Your task to perform on an android device: Search for vegetarian restaurants on Maps Image 0: 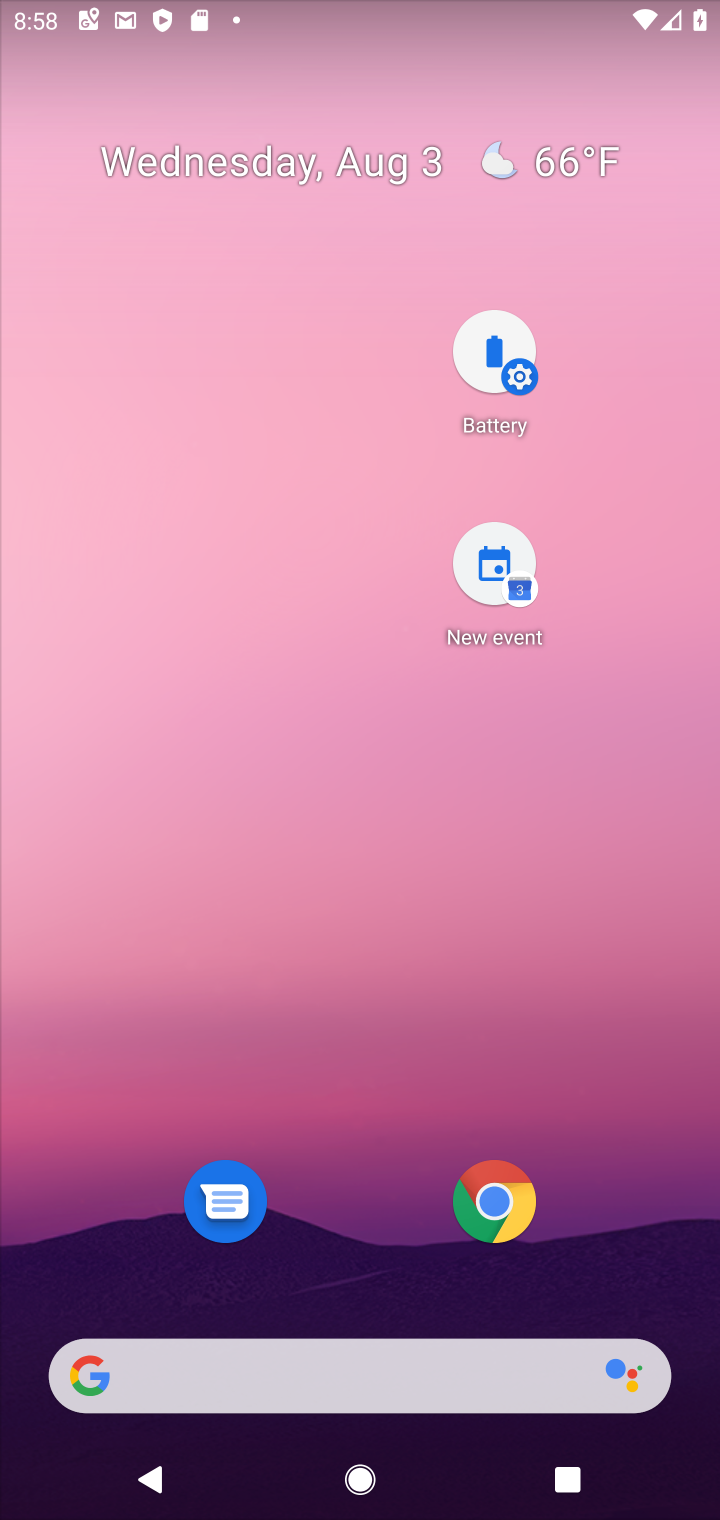
Step 0: click (341, 614)
Your task to perform on an android device: Search for vegetarian restaurants on Maps Image 1: 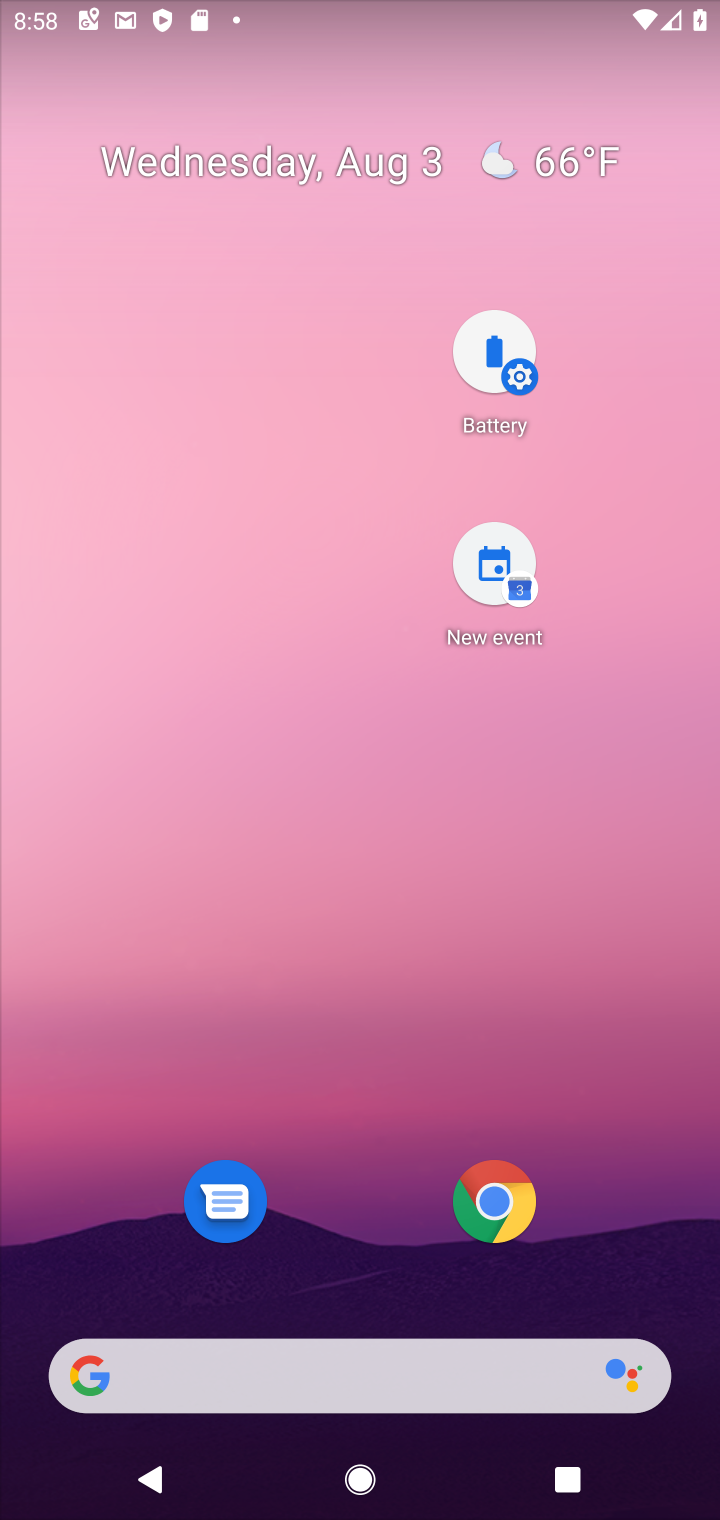
Step 1: click (485, 559)
Your task to perform on an android device: Search for vegetarian restaurants on Maps Image 2: 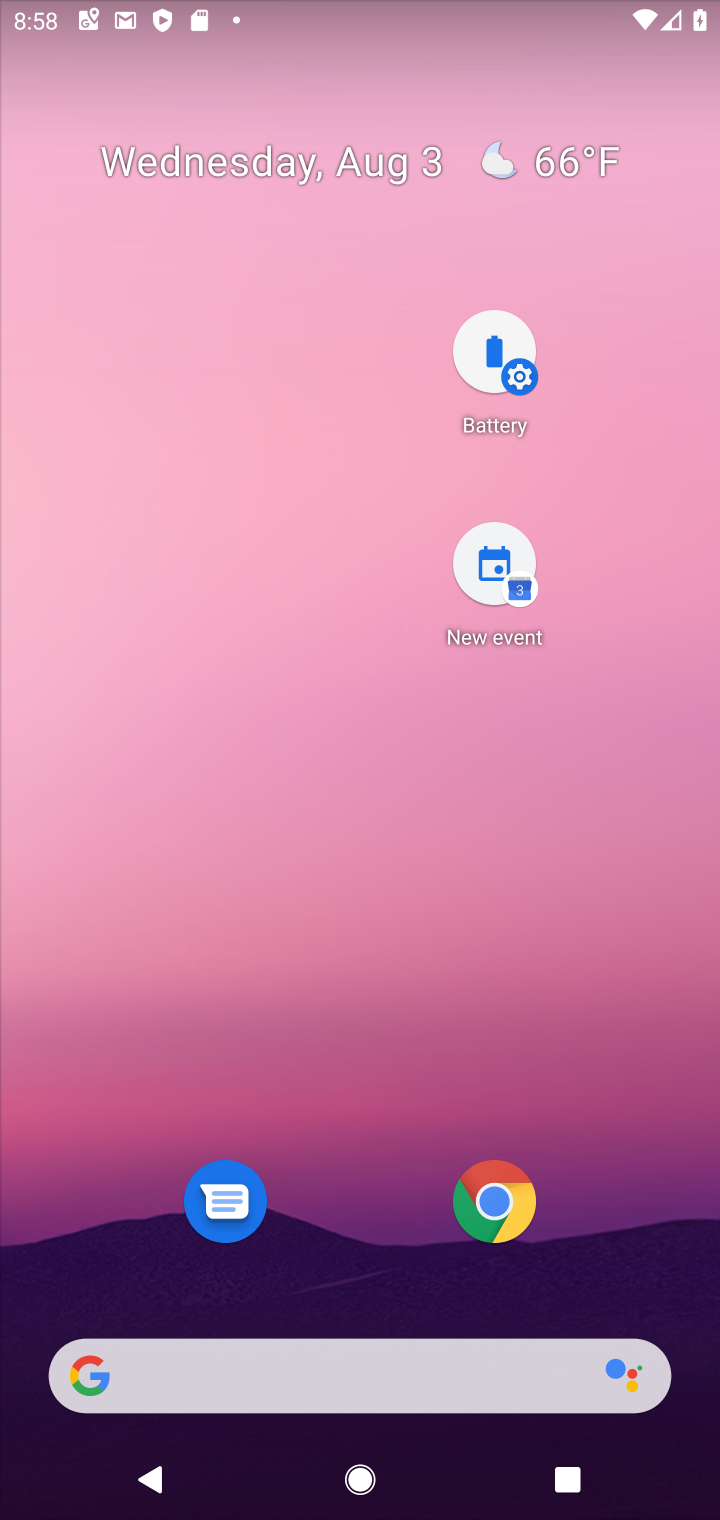
Step 2: drag from (386, 577) to (323, 435)
Your task to perform on an android device: Search for vegetarian restaurants on Maps Image 3: 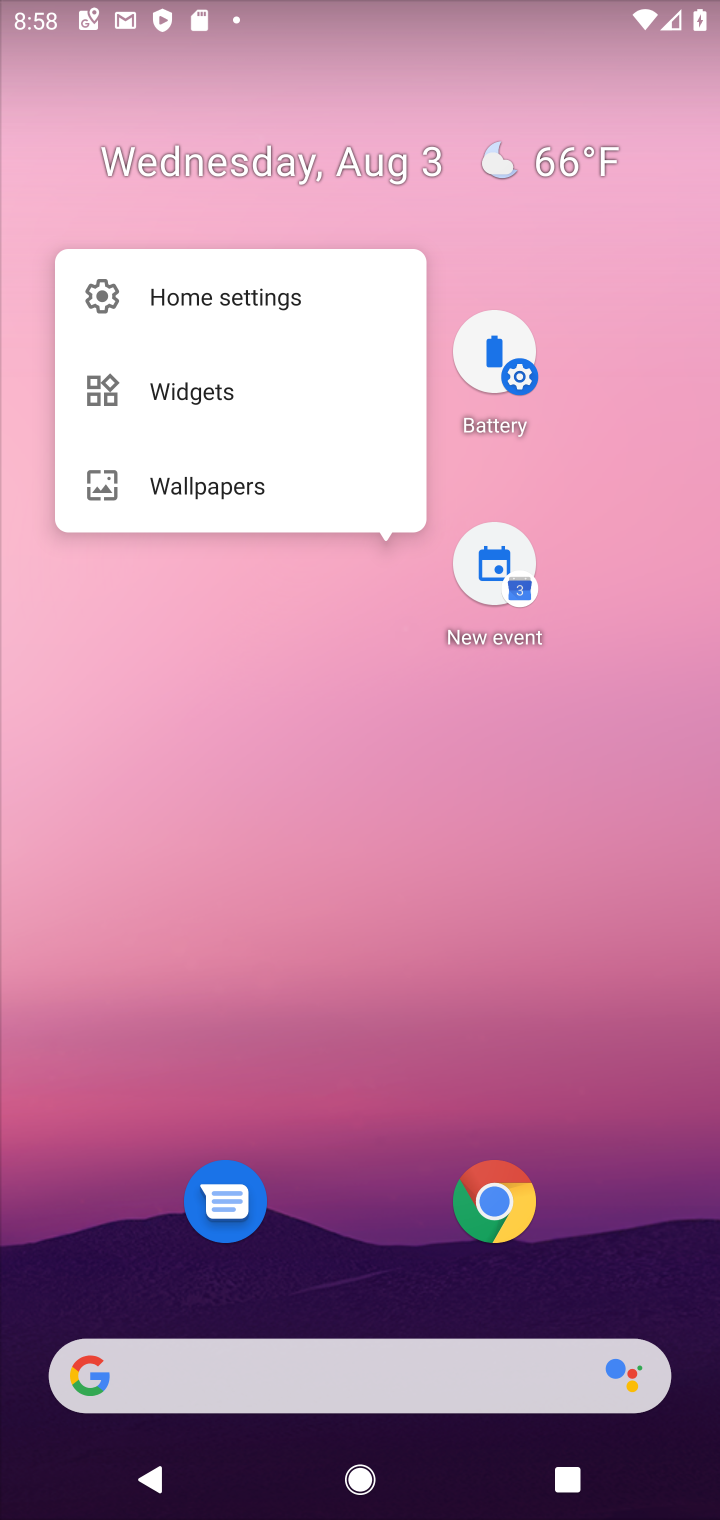
Step 3: drag from (495, 444) to (598, 297)
Your task to perform on an android device: Search for vegetarian restaurants on Maps Image 4: 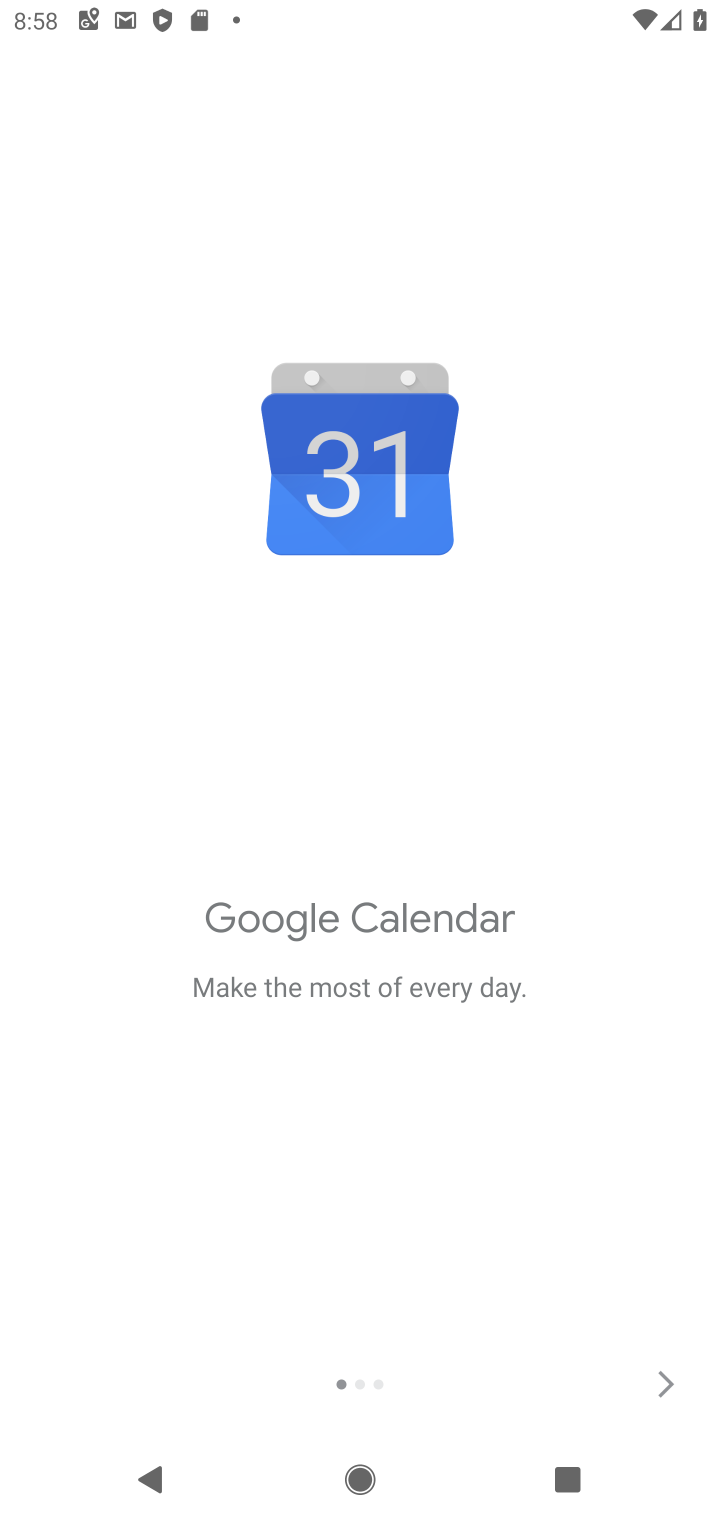
Step 4: click (607, 446)
Your task to perform on an android device: Search for vegetarian restaurants on Maps Image 5: 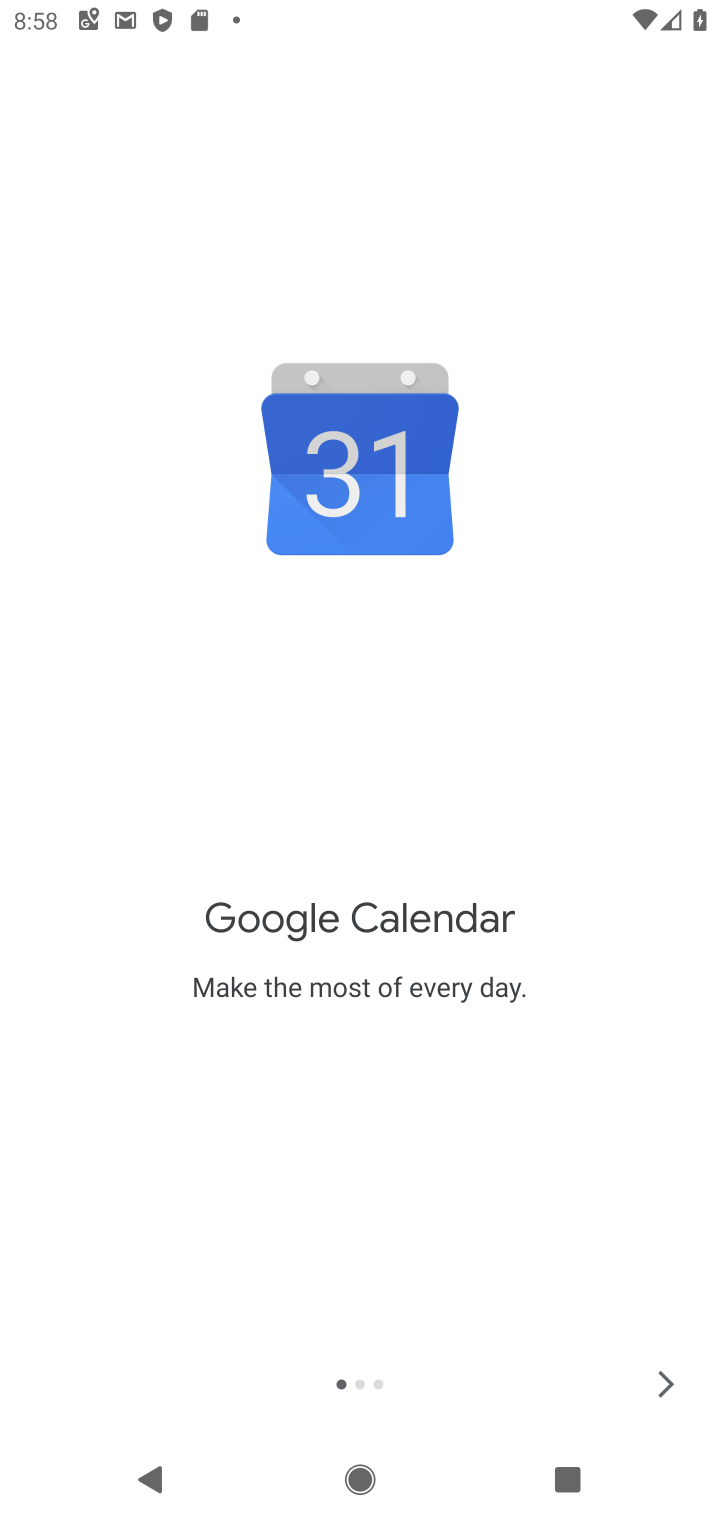
Step 5: press back button
Your task to perform on an android device: Search for vegetarian restaurants on Maps Image 6: 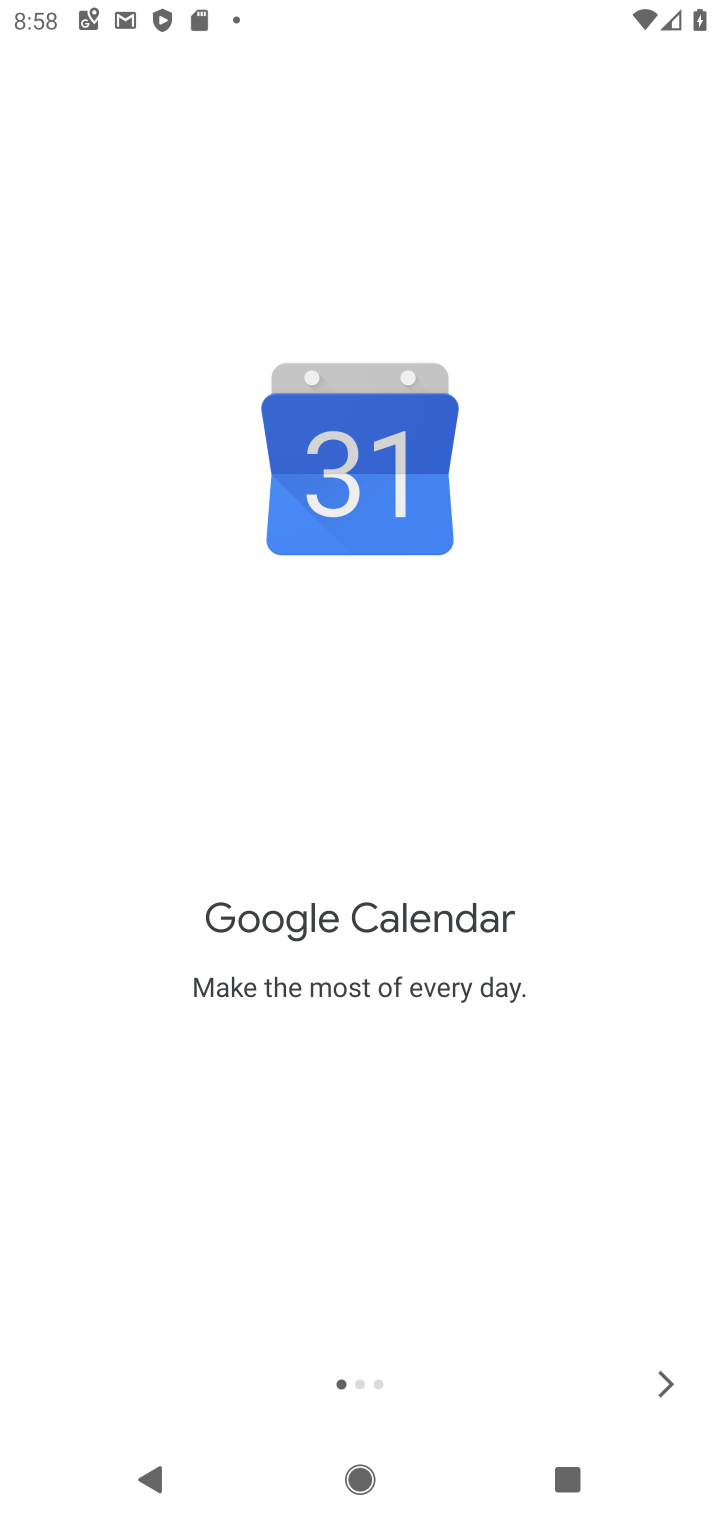
Step 6: press back button
Your task to perform on an android device: Search for vegetarian restaurants on Maps Image 7: 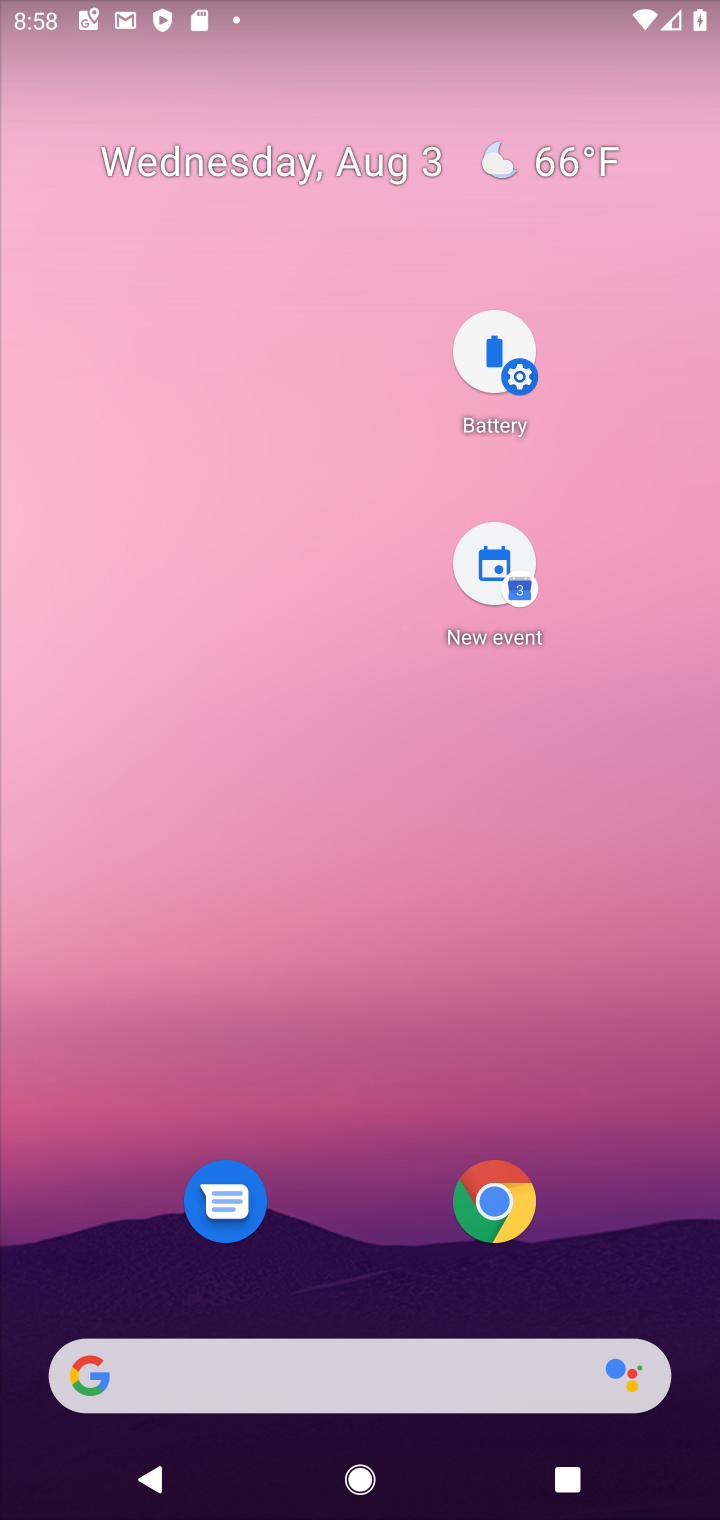
Step 7: press back button
Your task to perform on an android device: Search for vegetarian restaurants on Maps Image 8: 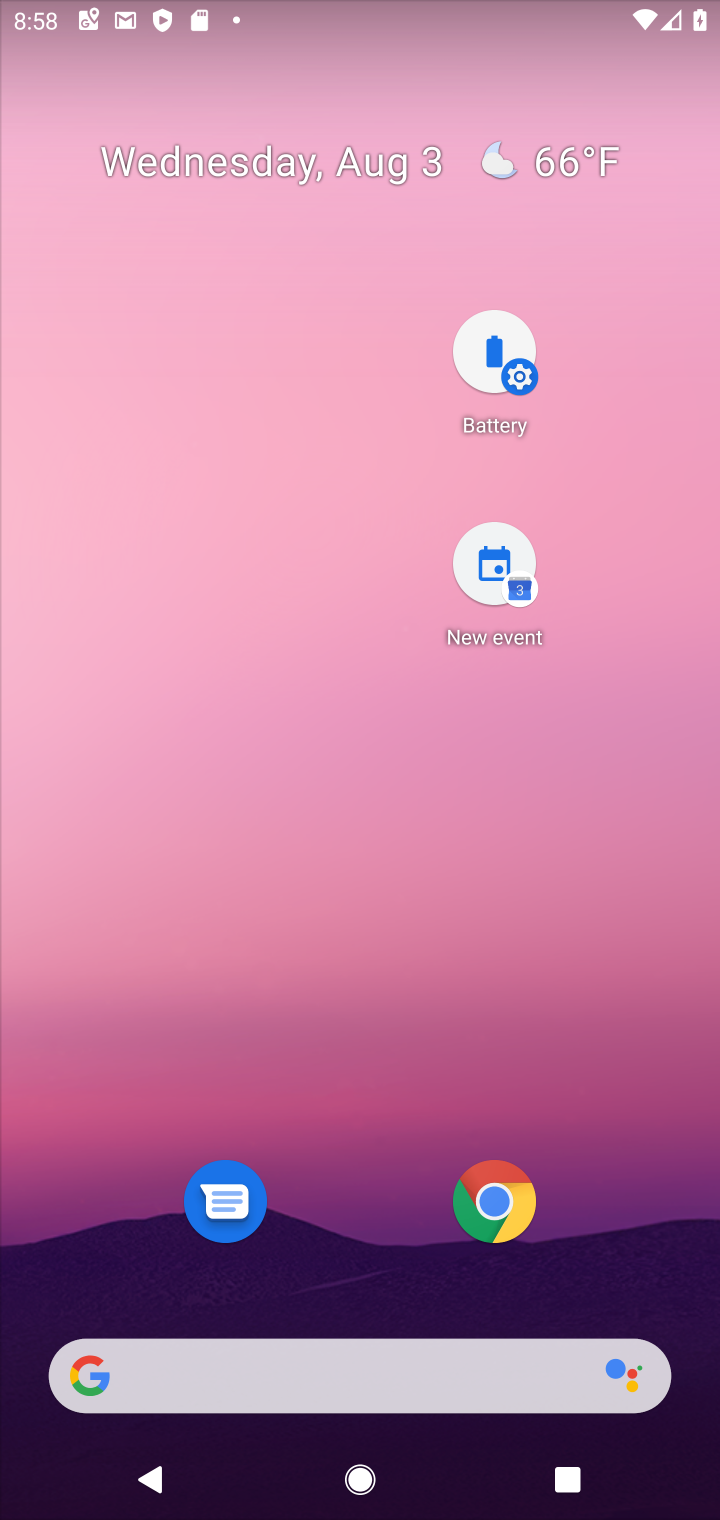
Step 8: press home button
Your task to perform on an android device: Search for vegetarian restaurants on Maps Image 9: 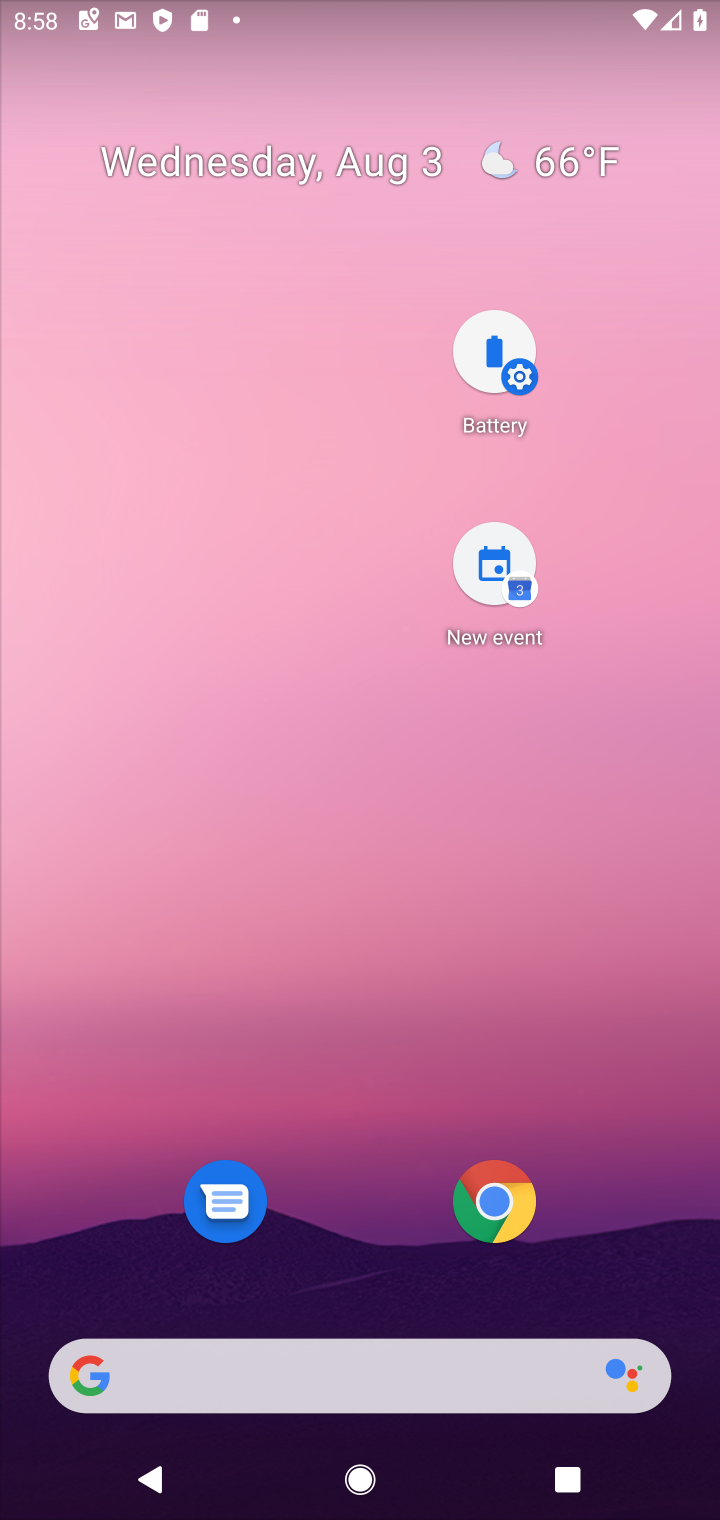
Step 9: drag from (390, 876) to (396, 641)
Your task to perform on an android device: Search for vegetarian restaurants on Maps Image 10: 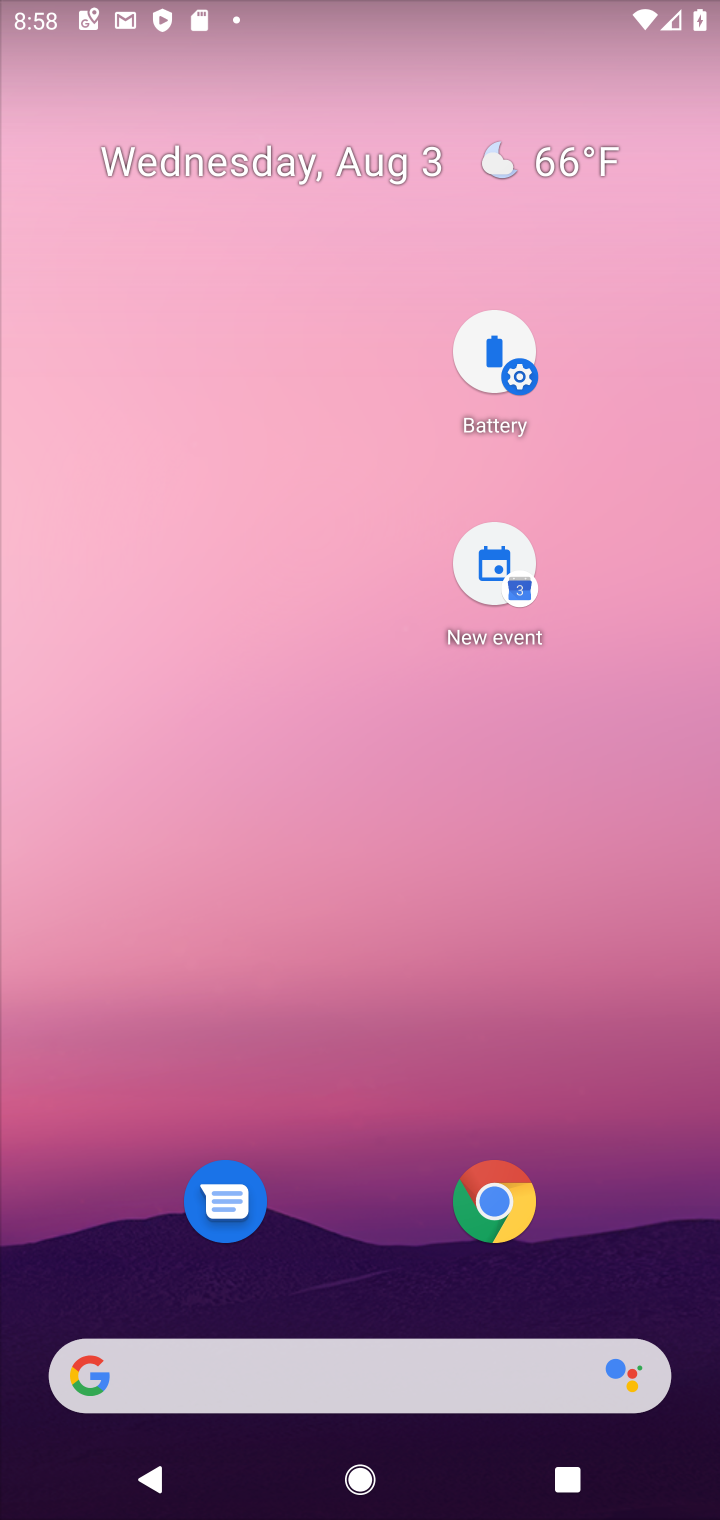
Step 10: drag from (205, 517) to (305, 347)
Your task to perform on an android device: Search for vegetarian restaurants on Maps Image 11: 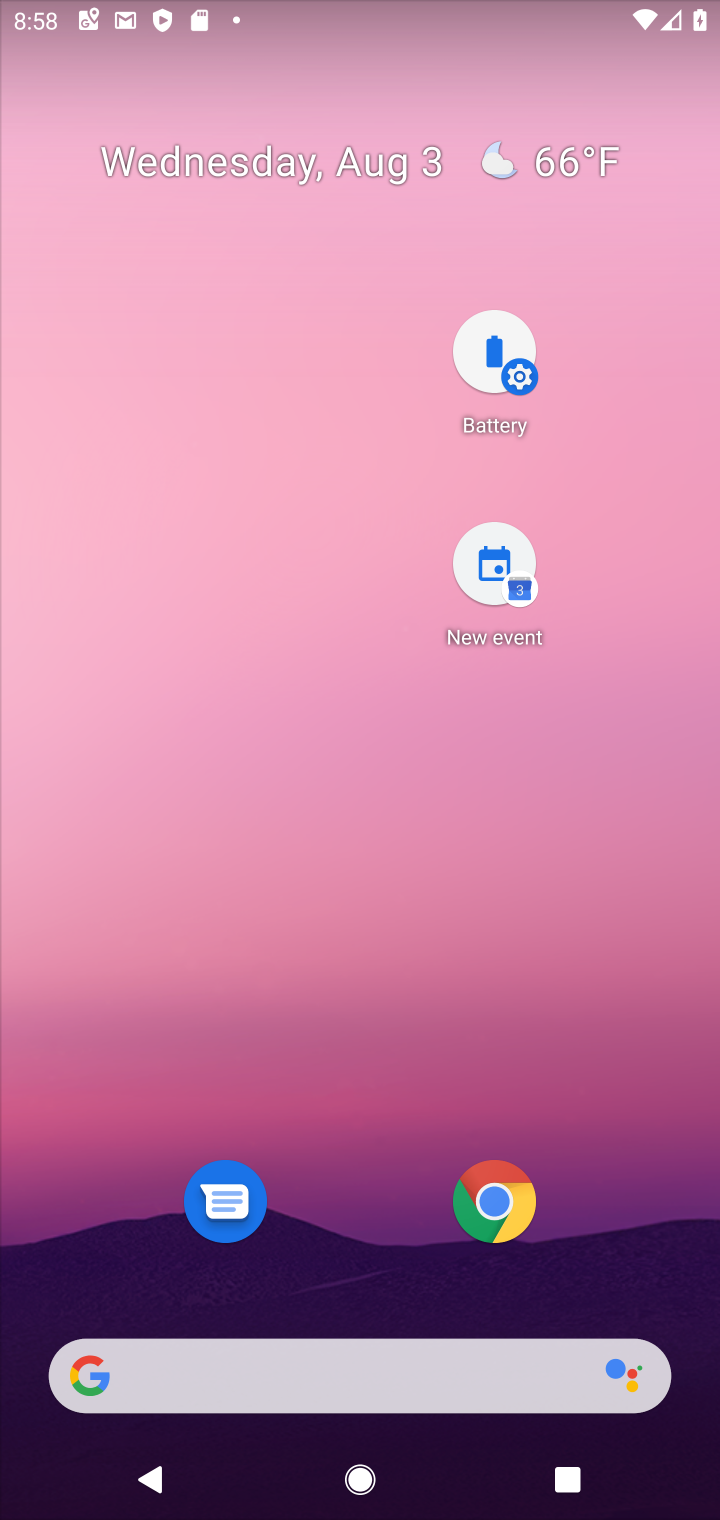
Step 11: drag from (384, 958) to (338, 400)
Your task to perform on an android device: Search for vegetarian restaurants on Maps Image 12: 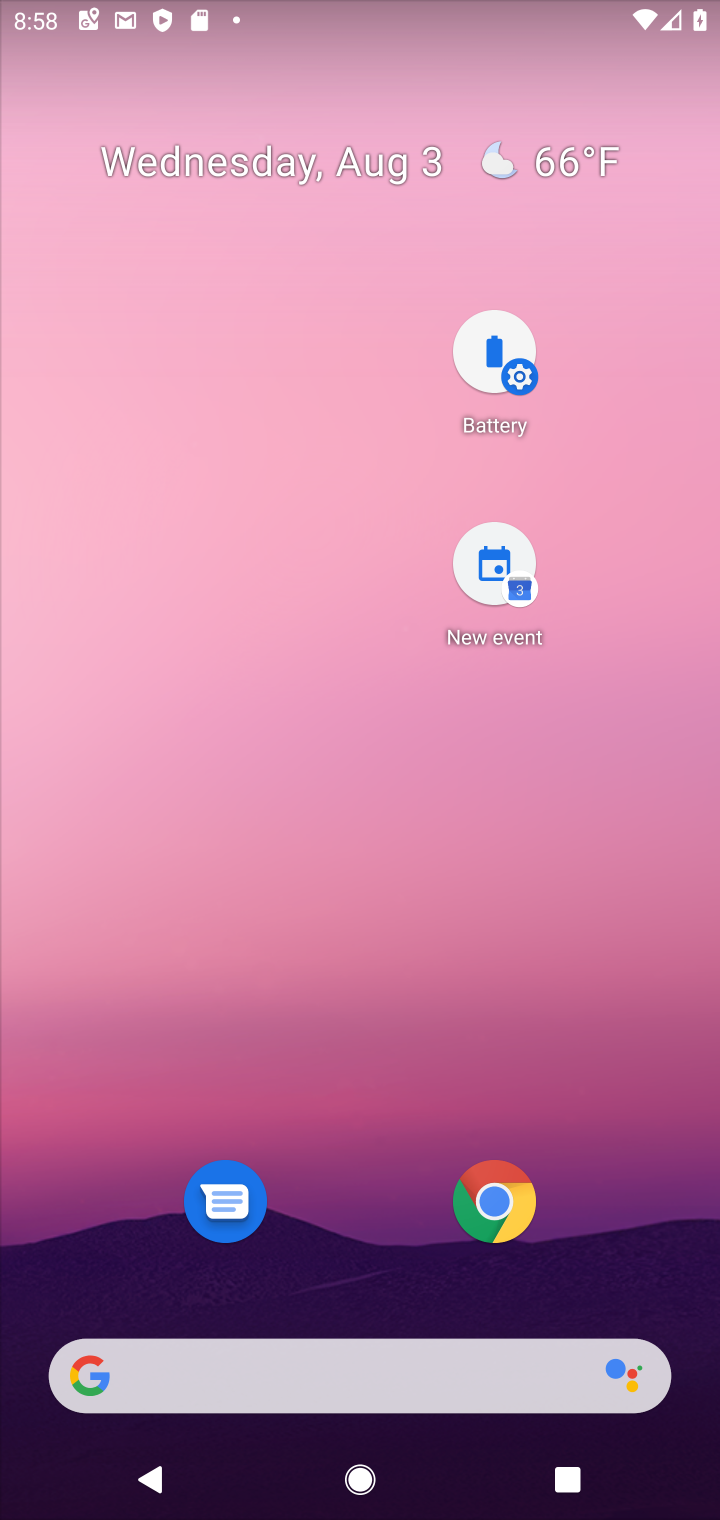
Step 12: drag from (438, 1137) to (365, 240)
Your task to perform on an android device: Search for vegetarian restaurants on Maps Image 13: 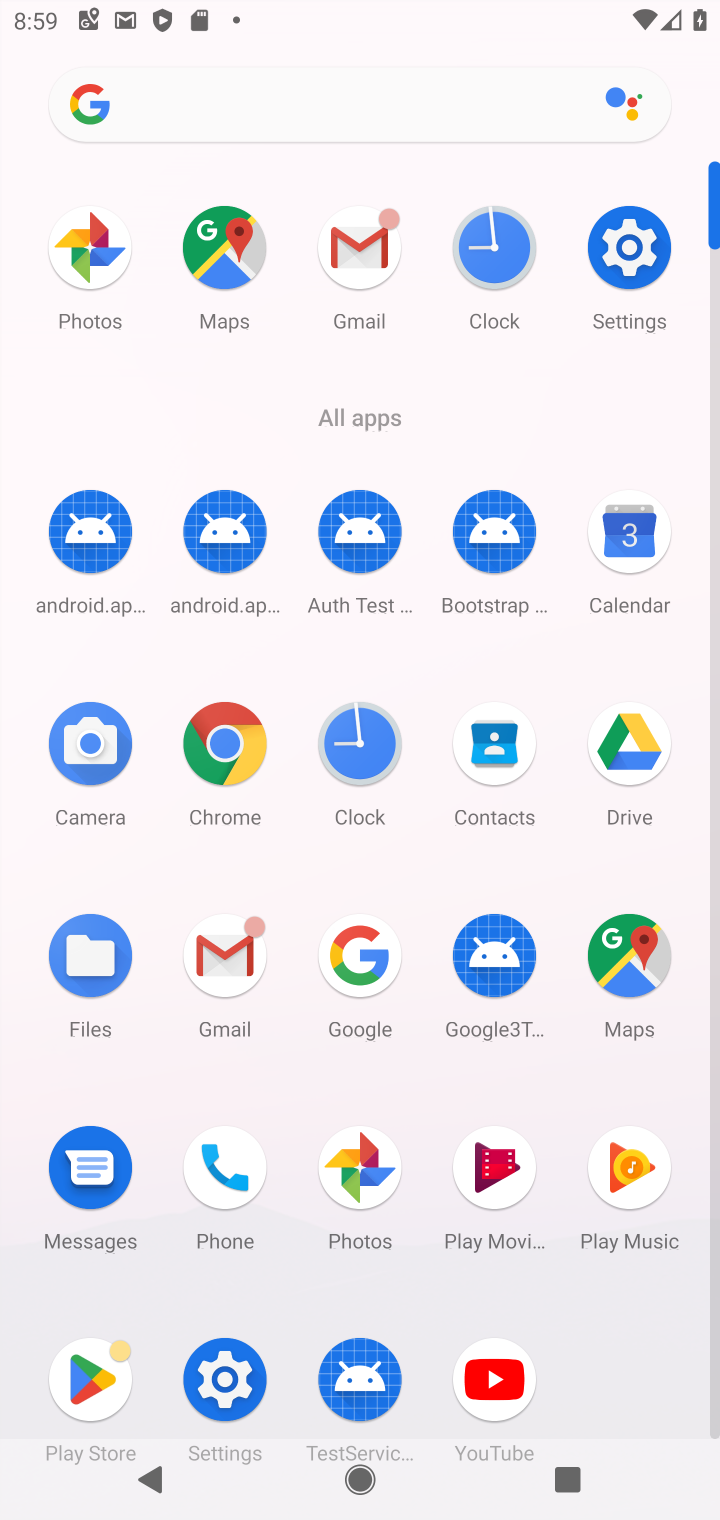
Step 13: click (628, 948)
Your task to perform on an android device: Search for vegetarian restaurants on Maps Image 14: 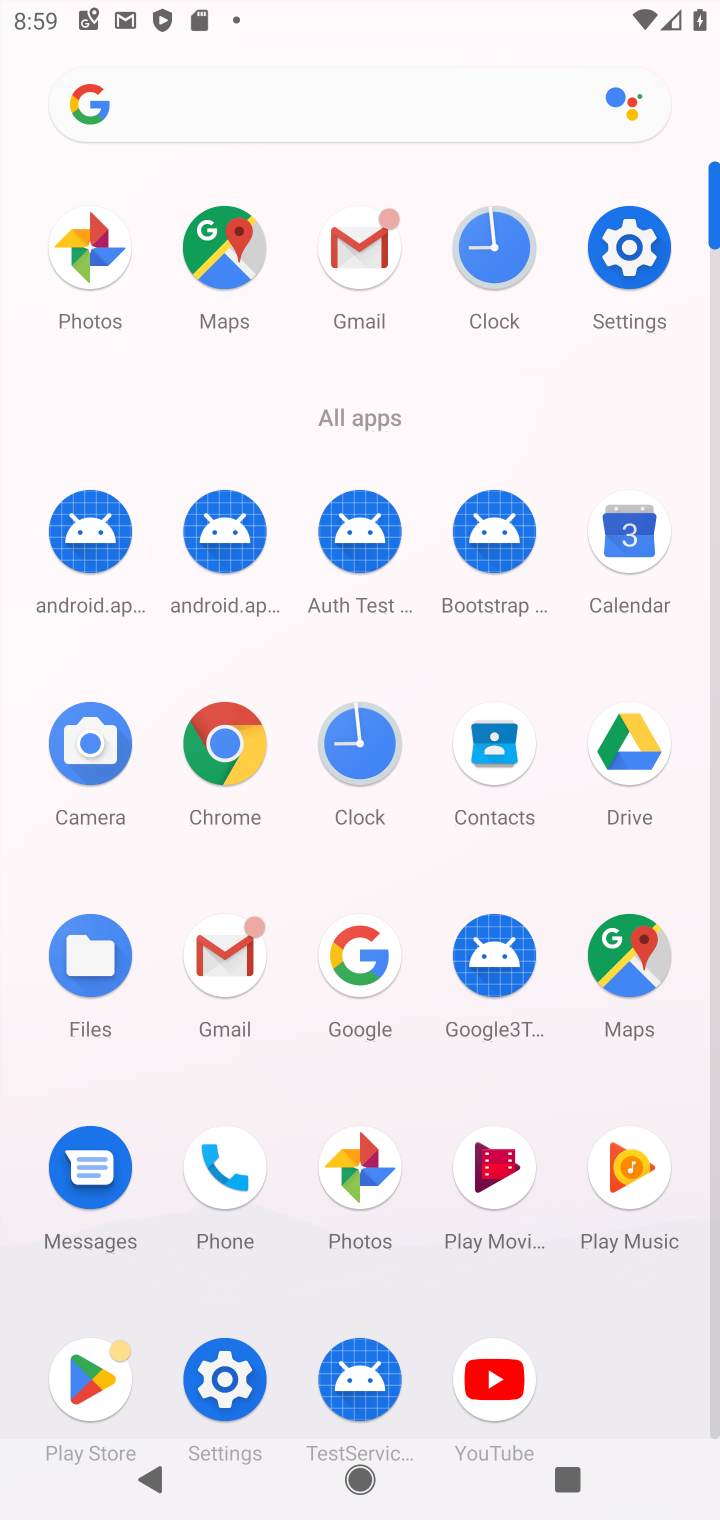
Step 14: click (628, 948)
Your task to perform on an android device: Search for vegetarian restaurants on Maps Image 15: 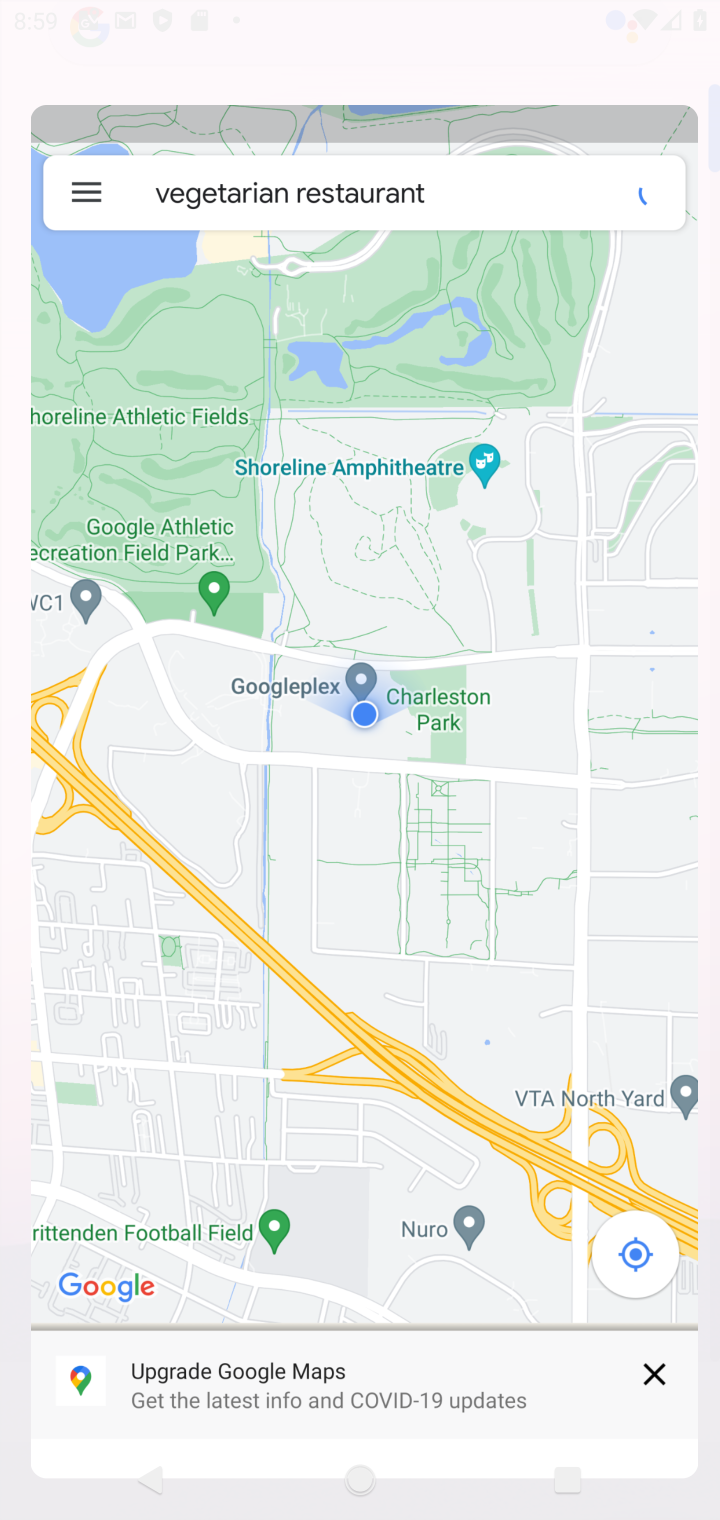
Step 15: click (629, 946)
Your task to perform on an android device: Search for vegetarian restaurants on Maps Image 16: 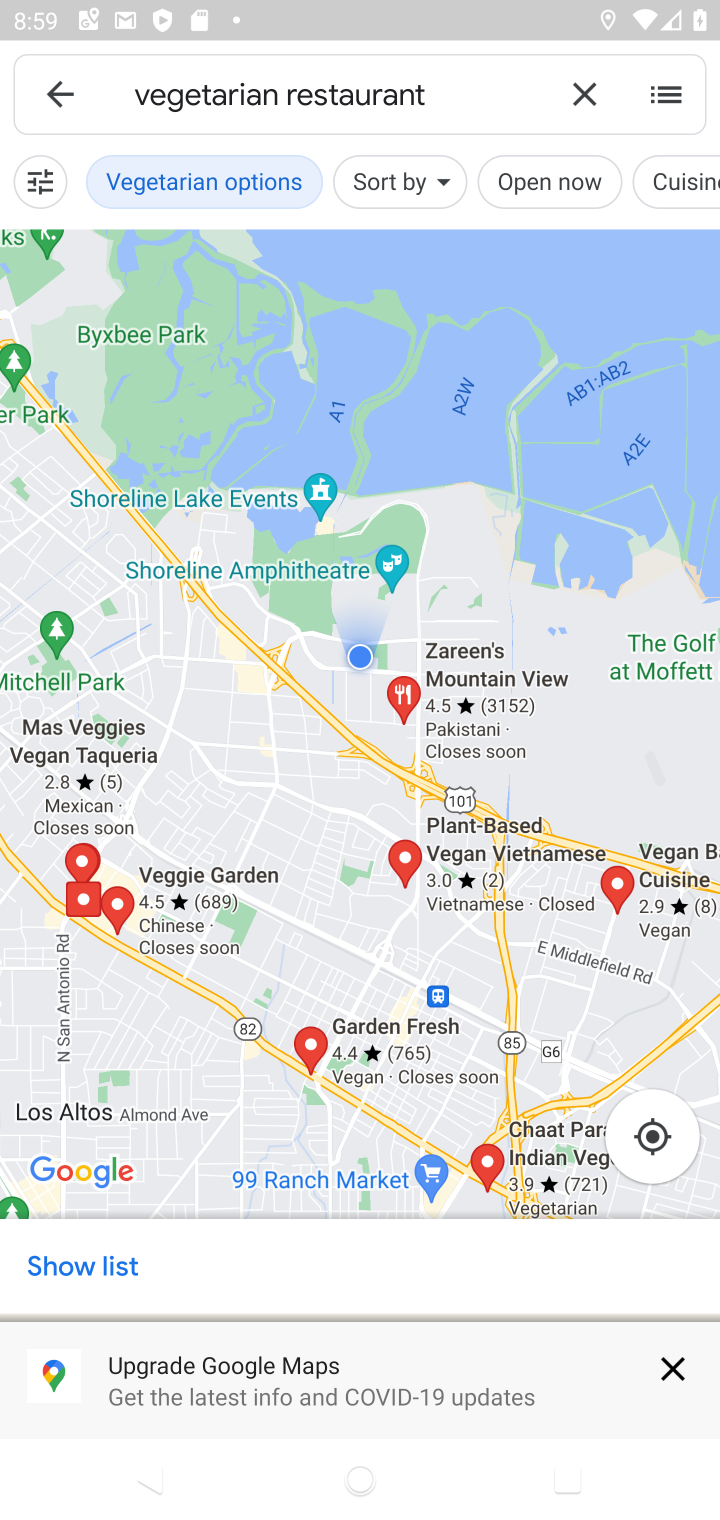
Step 16: click (343, 635)
Your task to perform on an android device: Search for vegetarian restaurants on Maps Image 17: 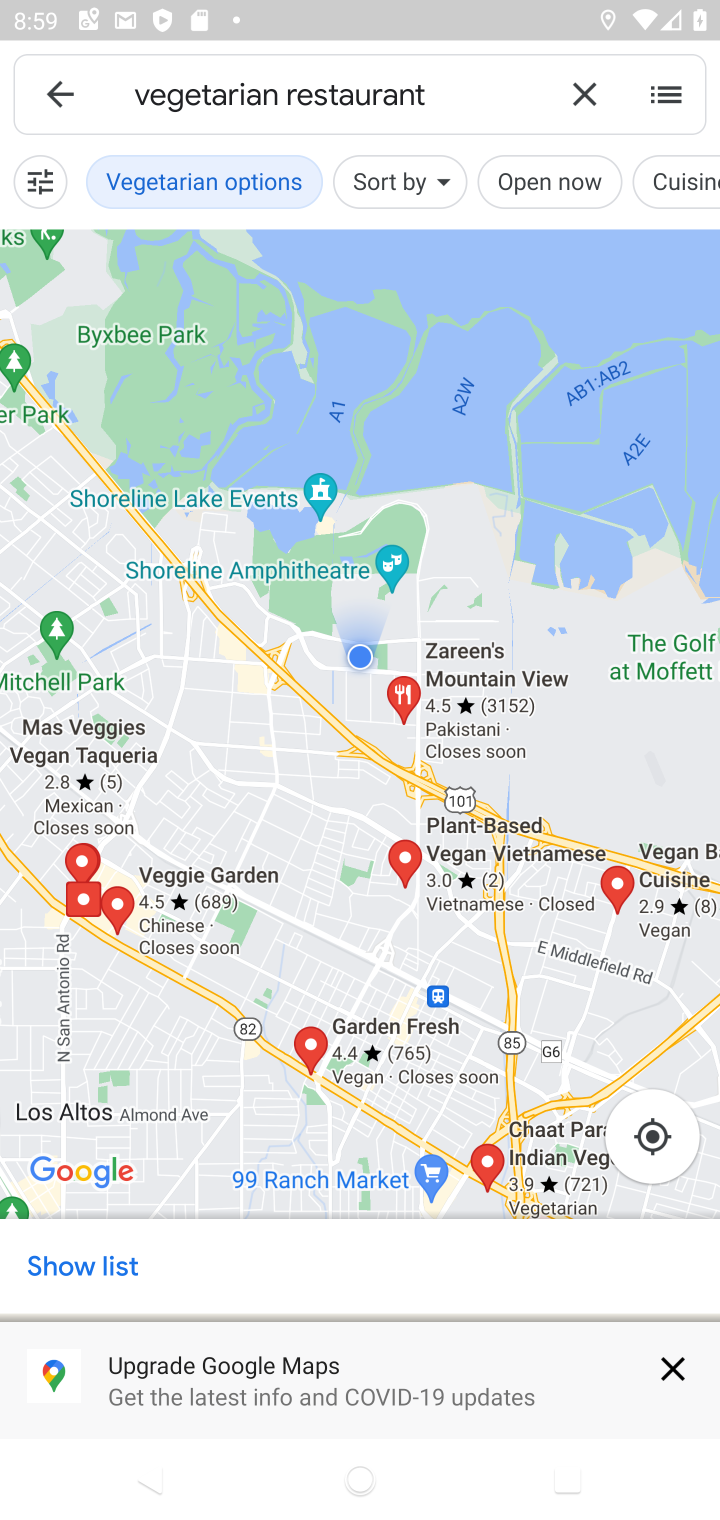
Step 17: click (310, 67)
Your task to perform on an android device: Search for vegetarian restaurants on Maps Image 18: 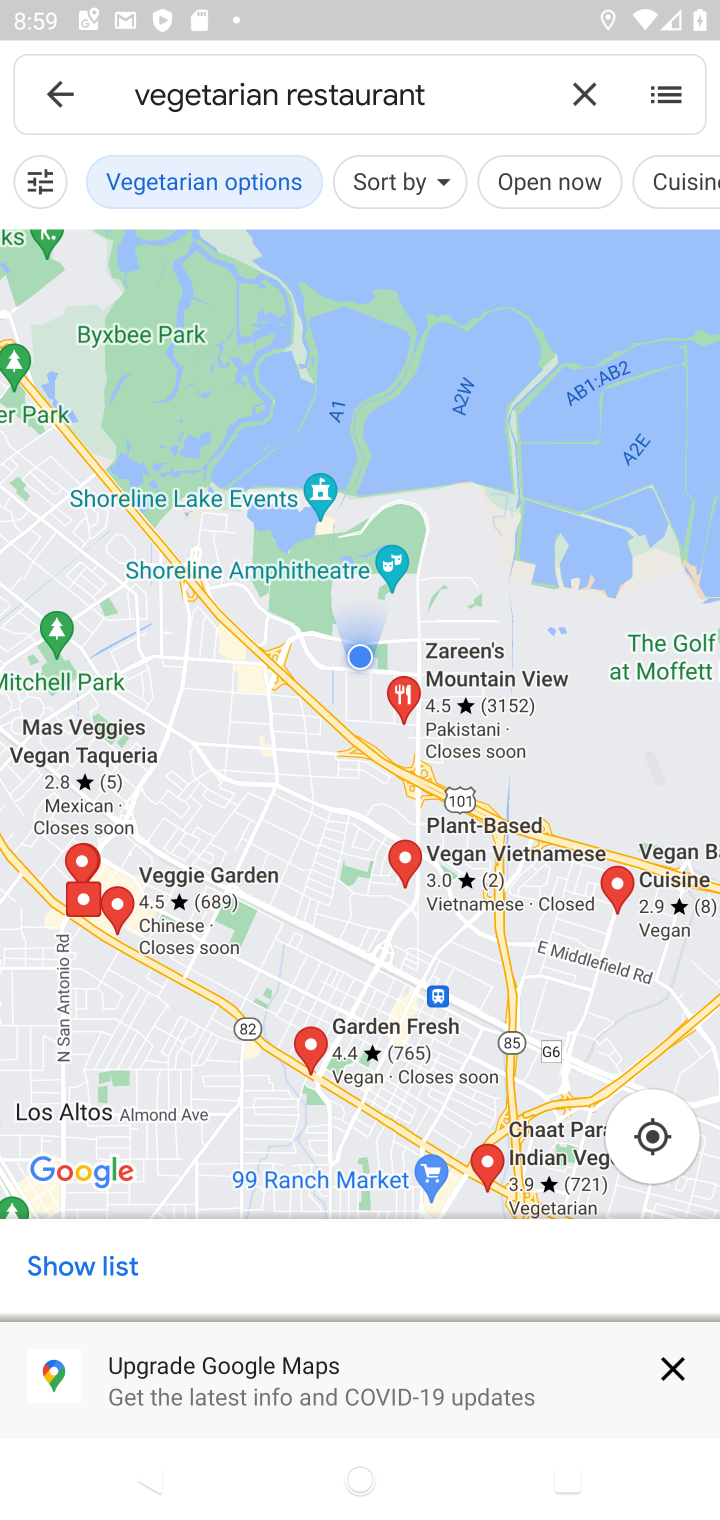
Step 18: click (310, 67)
Your task to perform on an android device: Search for vegetarian restaurants on Maps Image 19: 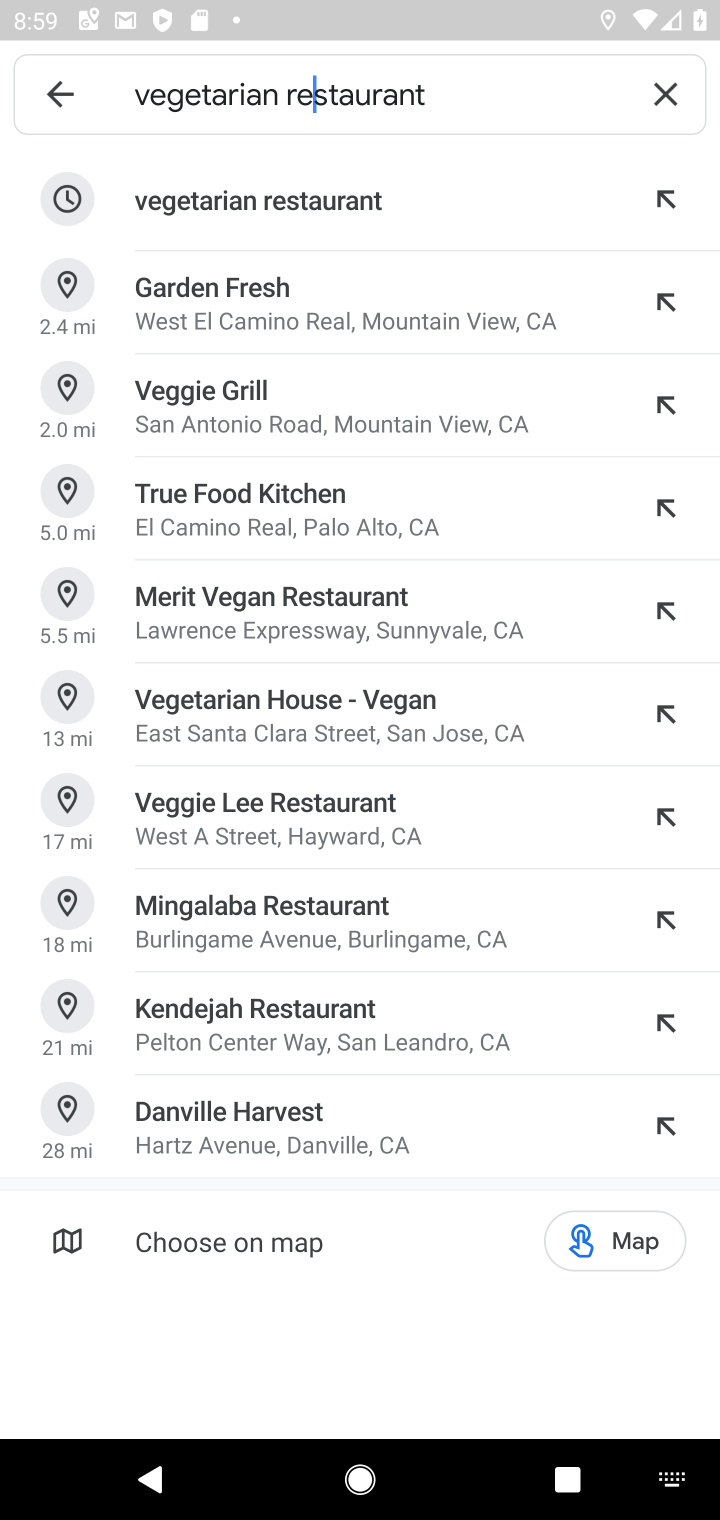
Step 19: click (335, 216)
Your task to perform on an android device: Search for vegetarian restaurants on Maps Image 20: 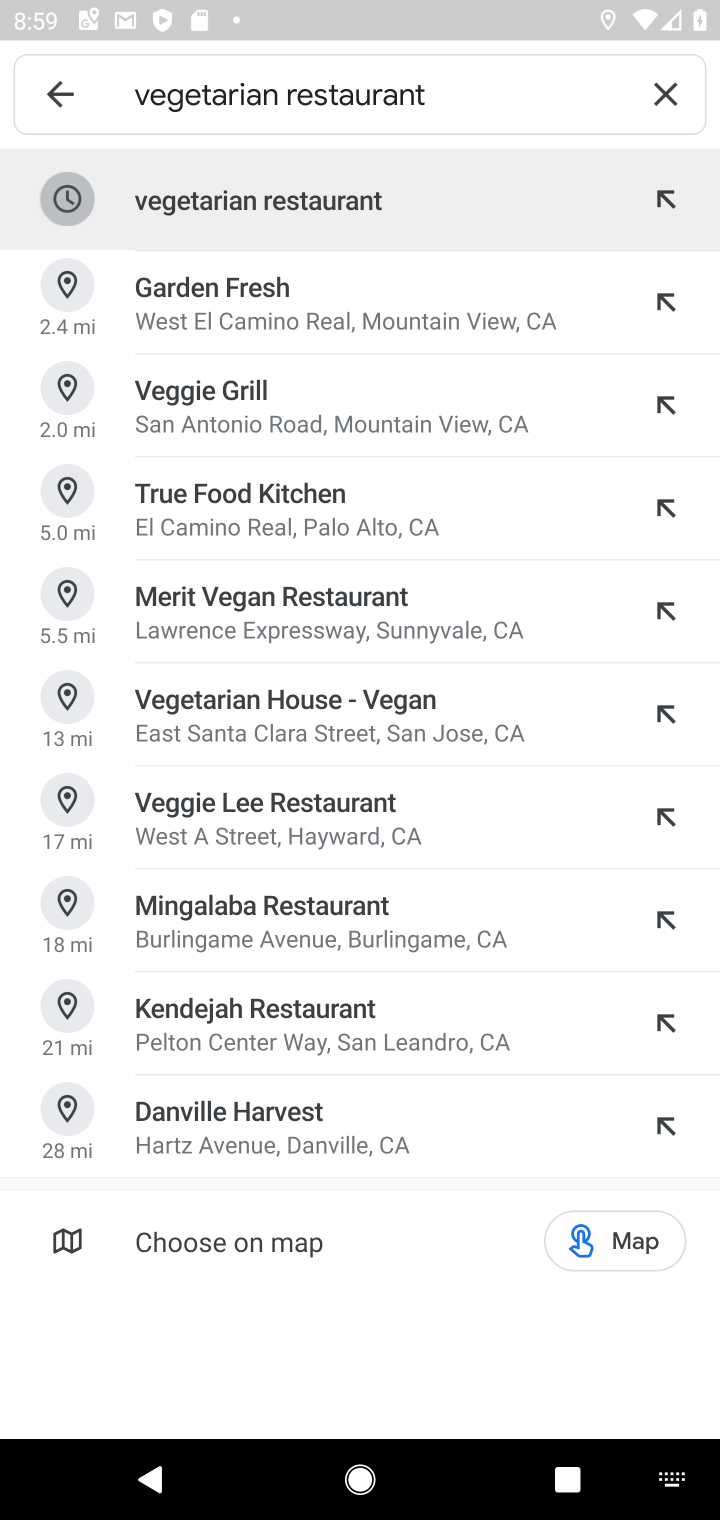
Step 20: click (333, 212)
Your task to perform on an android device: Search for vegetarian restaurants on Maps Image 21: 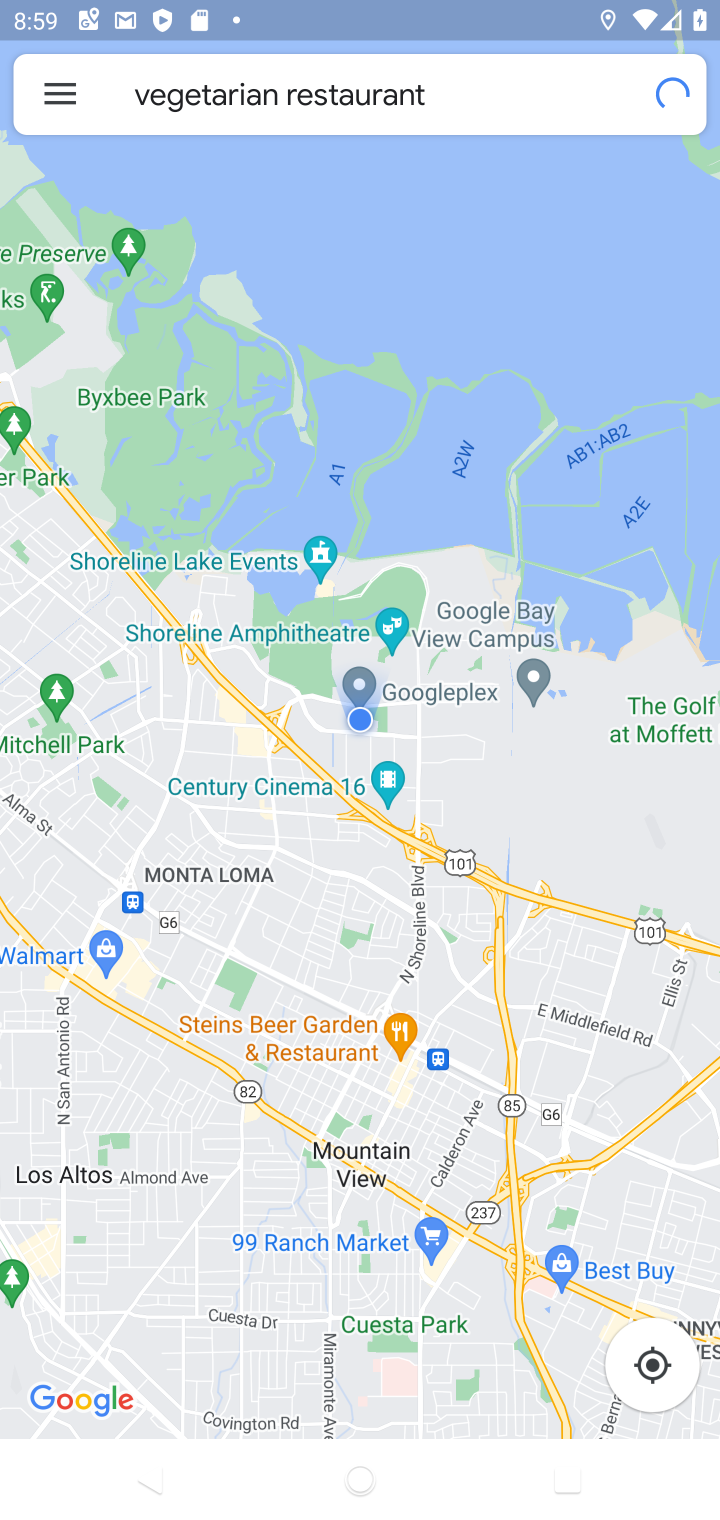
Step 21: click (345, 165)
Your task to perform on an android device: Search for vegetarian restaurants on Maps Image 22: 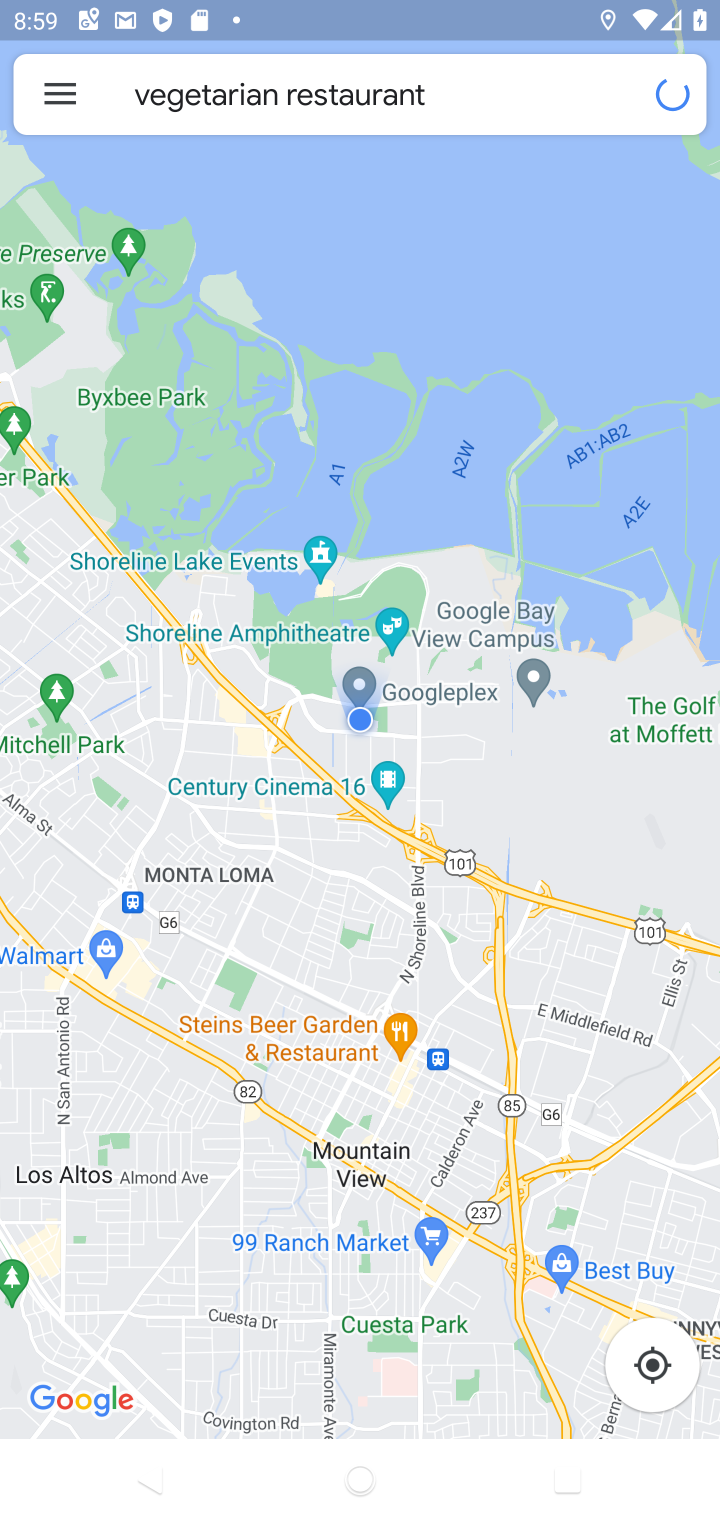
Step 22: click (263, 262)
Your task to perform on an android device: Search for vegetarian restaurants on Maps Image 23: 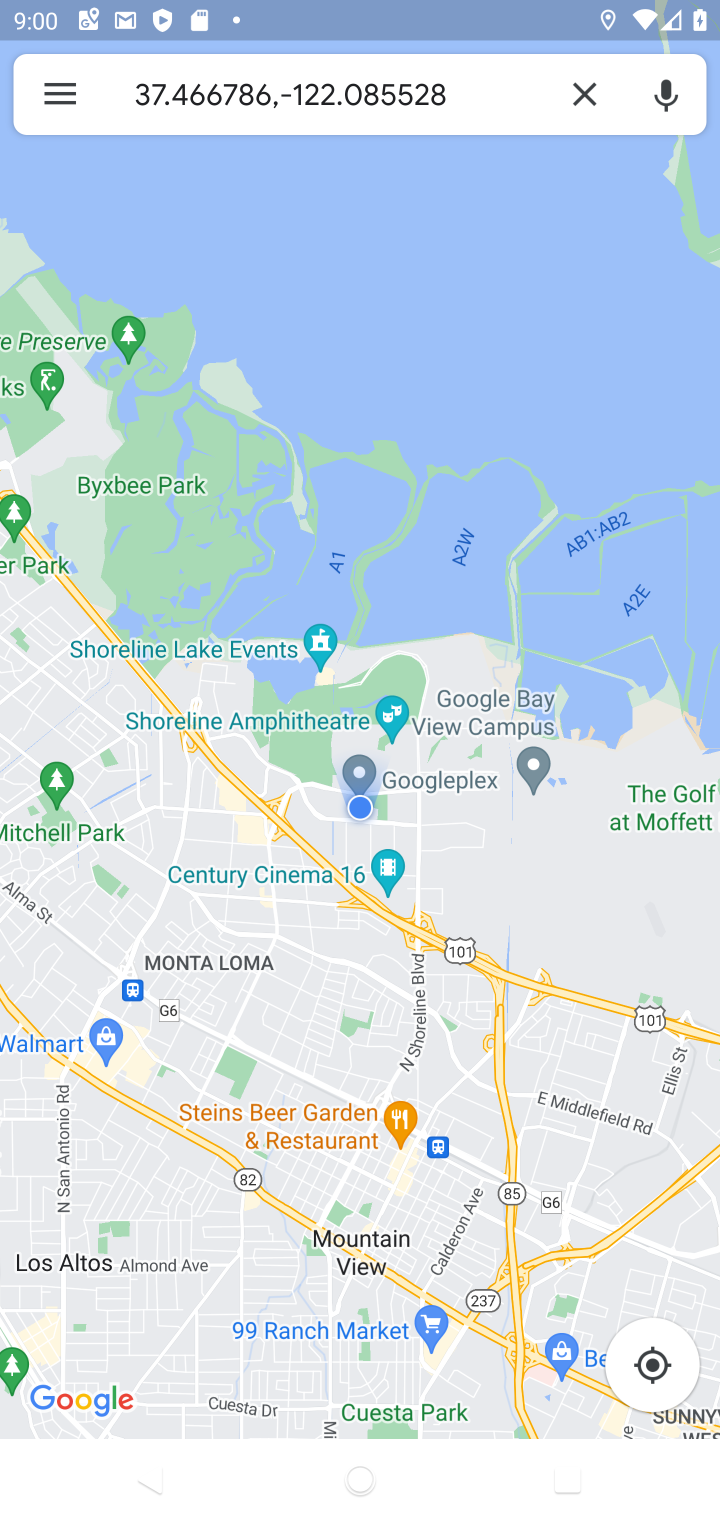
Step 23: task complete